Your task to perform on an android device: toggle pop-ups in chrome Image 0: 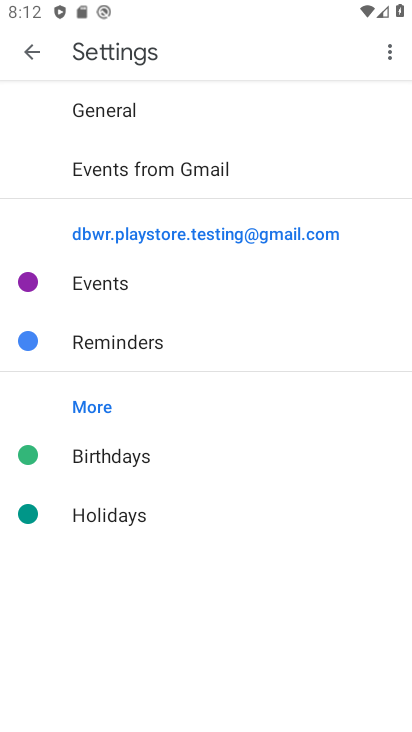
Step 0: press home button
Your task to perform on an android device: toggle pop-ups in chrome Image 1: 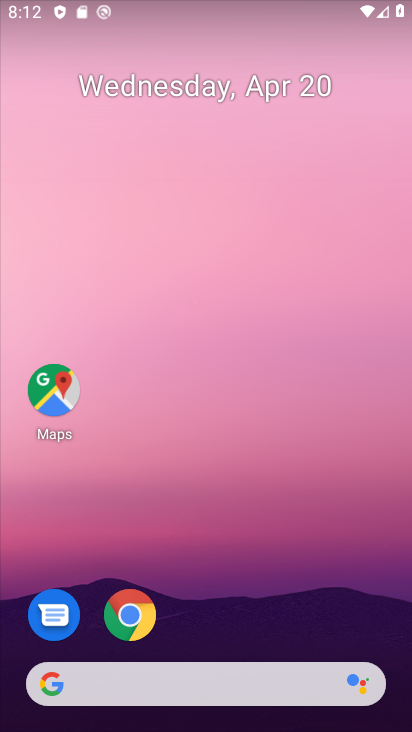
Step 1: click (121, 609)
Your task to perform on an android device: toggle pop-ups in chrome Image 2: 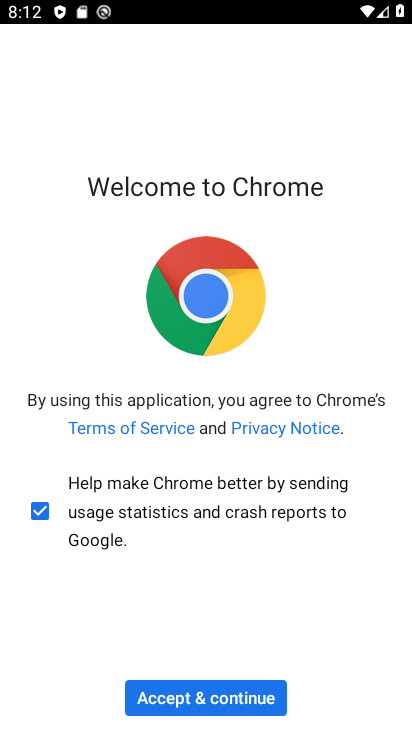
Step 2: click (166, 706)
Your task to perform on an android device: toggle pop-ups in chrome Image 3: 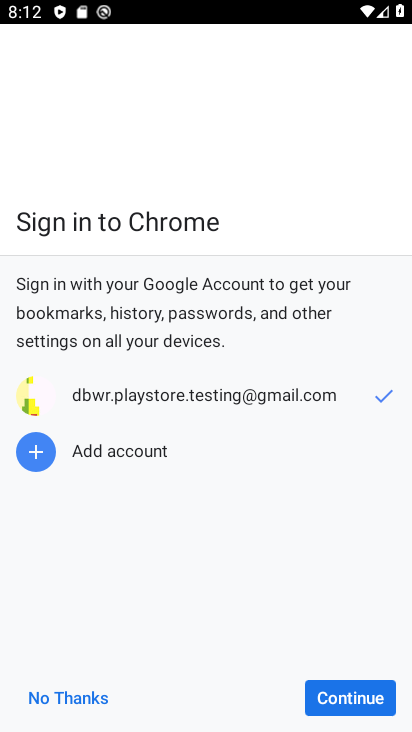
Step 3: click (62, 700)
Your task to perform on an android device: toggle pop-ups in chrome Image 4: 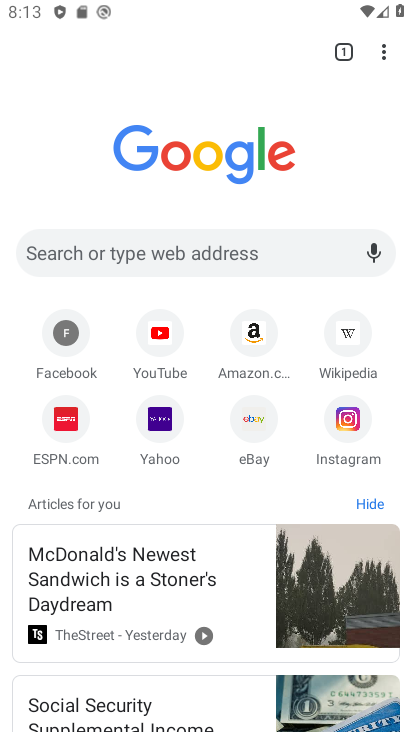
Step 4: click (388, 51)
Your task to perform on an android device: toggle pop-ups in chrome Image 5: 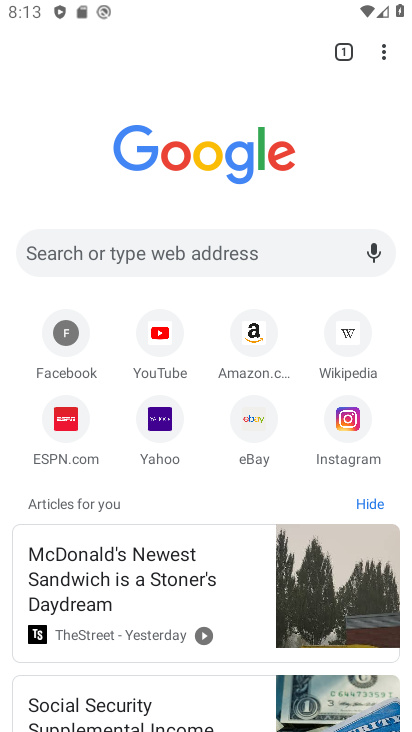
Step 5: click (387, 52)
Your task to perform on an android device: toggle pop-ups in chrome Image 6: 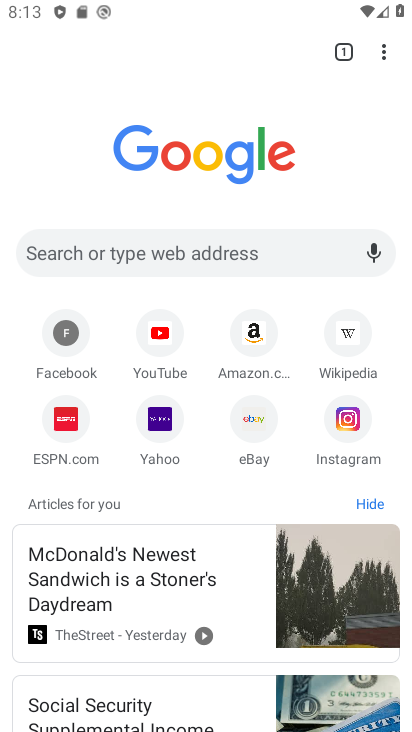
Step 6: click (387, 51)
Your task to perform on an android device: toggle pop-ups in chrome Image 7: 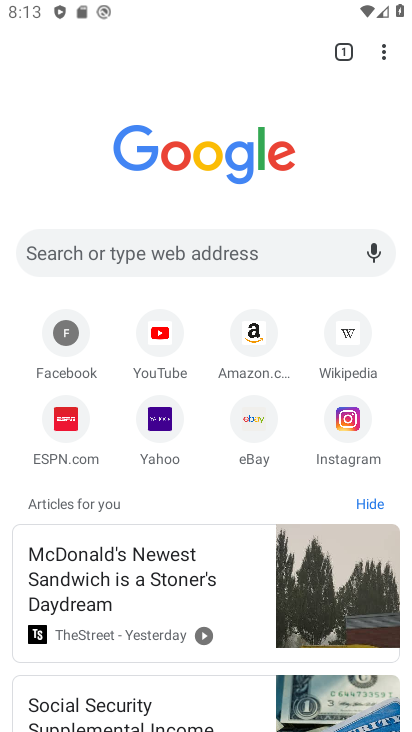
Step 7: click (383, 53)
Your task to perform on an android device: toggle pop-ups in chrome Image 8: 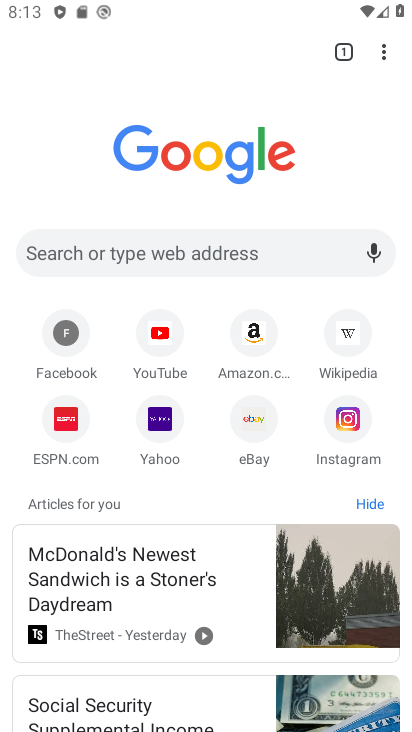
Step 8: click (382, 53)
Your task to perform on an android device: toggle pop-ups in chrome Image 9: 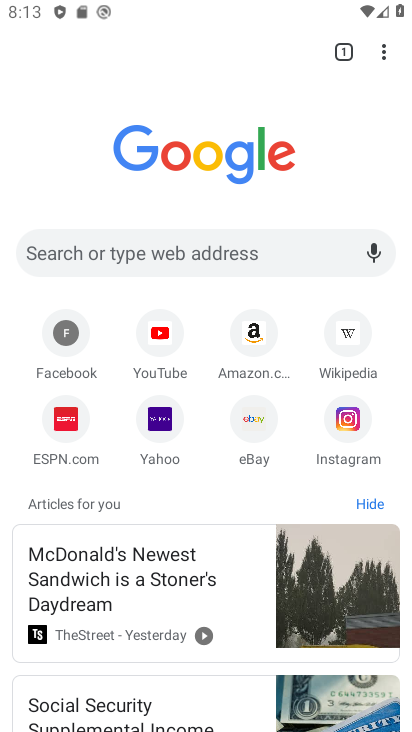
Step 9: click (382, 53)
Your task to perform on an android device: toggle pop-ups in chrome Image 10: 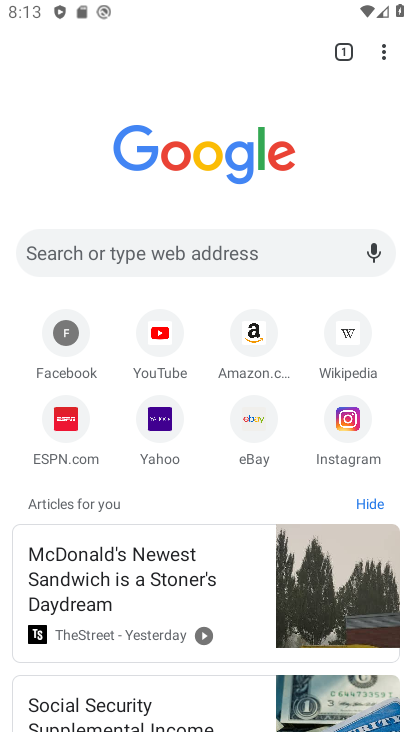
Step 10: click (382, 53)
Your task to perform on an android device: toggle pop-ups in chrome Image 11: 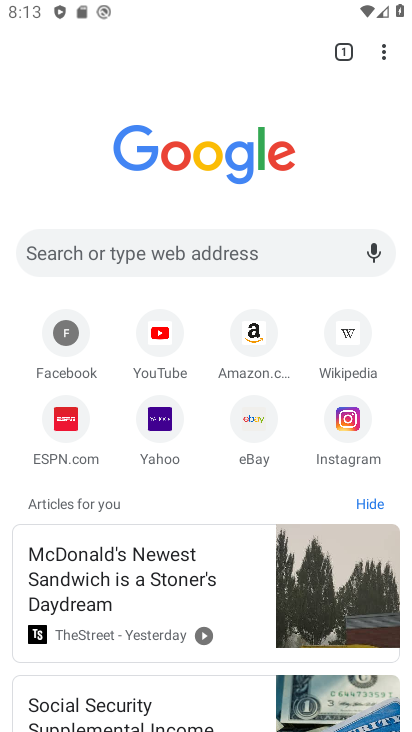
Step 11: click (382, 53)
Your task to perform on an android device: toggle pop-ups in chrome Image 12: 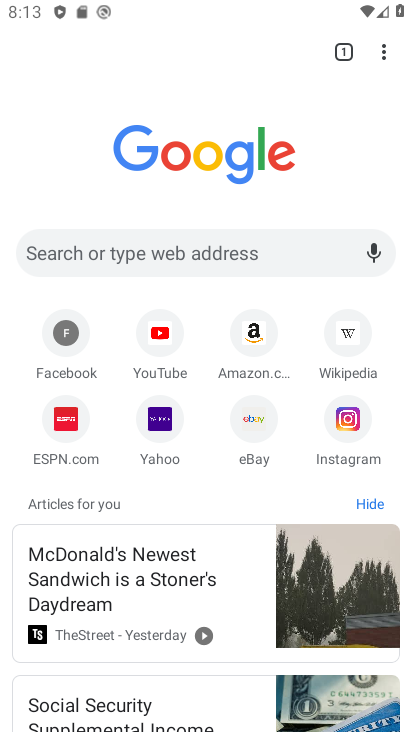
Step 12: click (382, 53)
Your task to perform on an android device: toggle pop-ups in chrome Image 13: 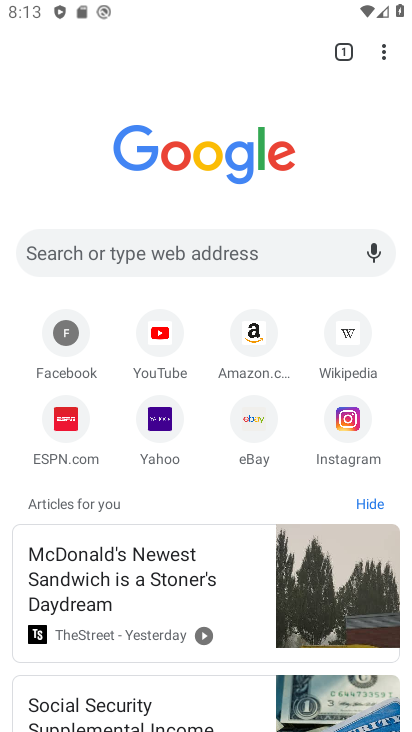
Step 13: click (382, 52)
Your task to perform on an android device: toggle pop-ups in chrome Image 14: 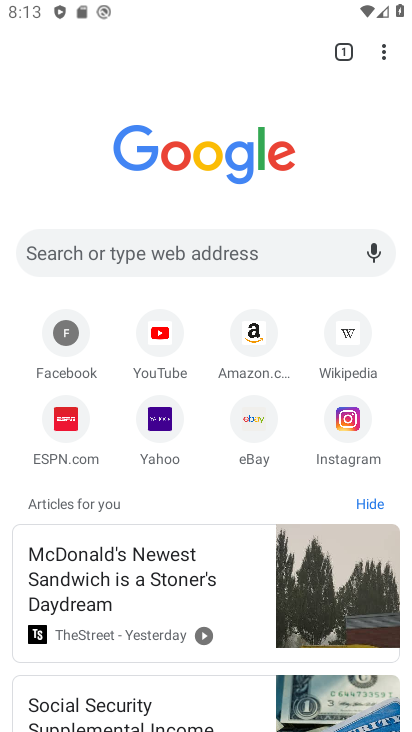
Step 14: click (382, 52)
Your task to perform on an android device: toggle pop-ups in chrome Image 15: 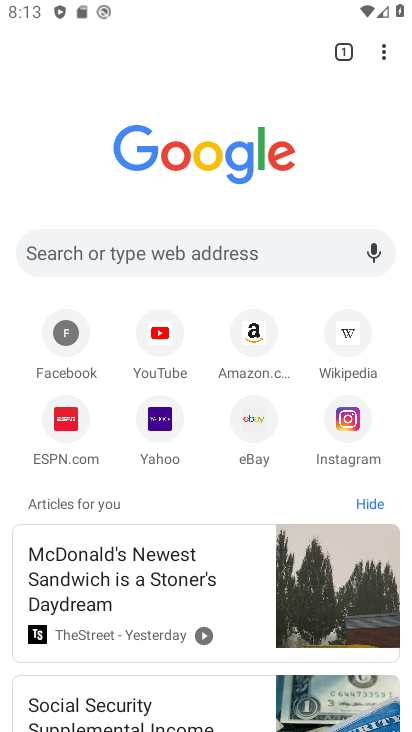
Step 15: click (382, 52)
Your task to perform on an android device: toggle pop-ups in chrome Image 16: 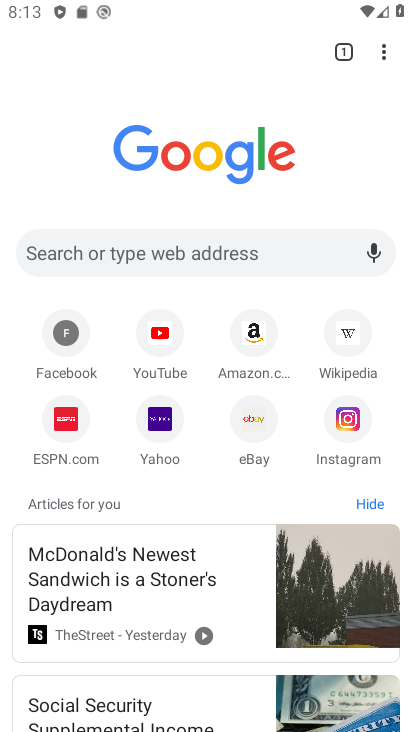
Step 16: click (382, 52)
Your task to perform on an android device: toggle pop-ups in chrome Image 17: 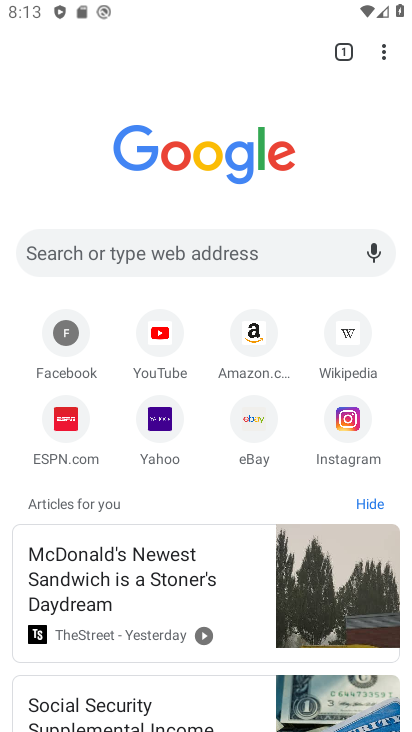
Step 17: click (384, 48)
Your task to perform on an android device: toggle pop-ups in chrome Image 18: 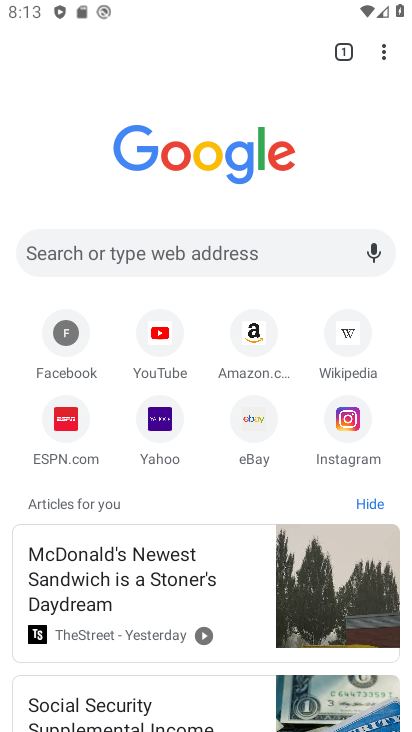
Step 18: click (385, 52)
Your task to perform on an android device: toggle pop-ups in chrome Image 19: 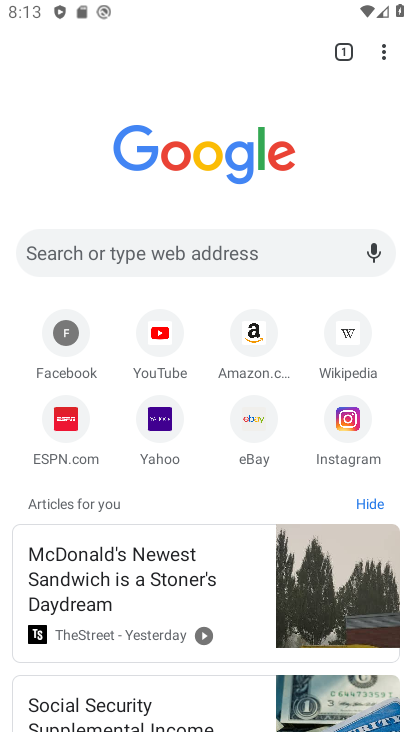
Step 19: click (381, 51)
Your task to perform on an android device: toggle pop-ups in chrome Image 20: 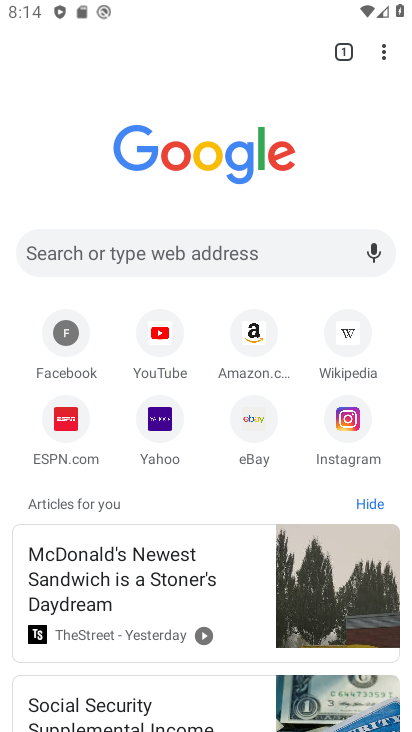
Step 20: click (393, 50)
Your task to perform on an android device: toggle pop-ups in chrome Image 21: 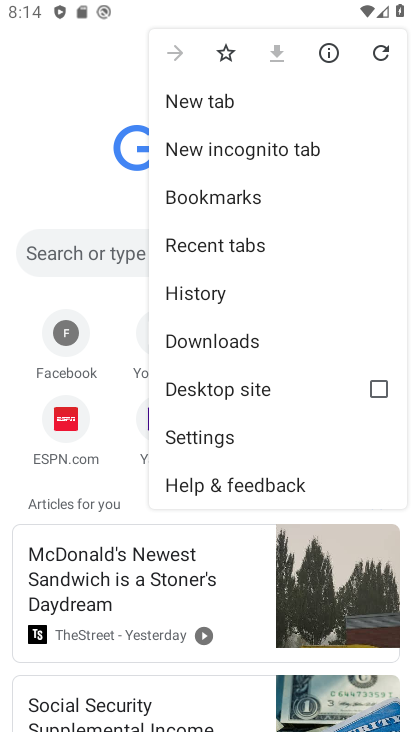
Step 21: click (226, 437)
Your task to perform on an android device: toggle pop-ups in chrome Image 22: 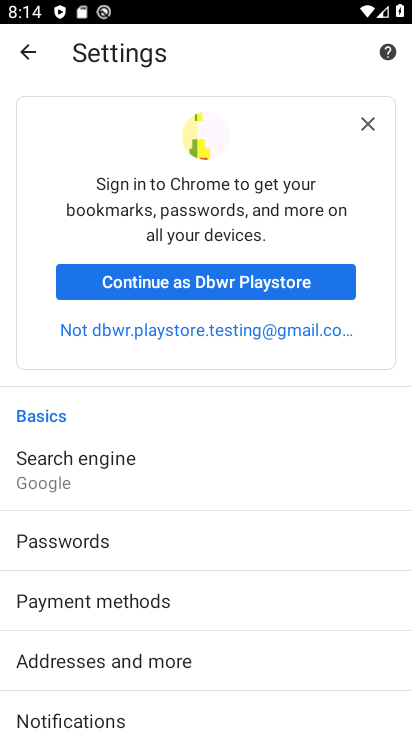
Step 22: drag from (153, 675) to (243, 353)
Your task to perform on an android device: toggle pop-ups in chrome Image 23: 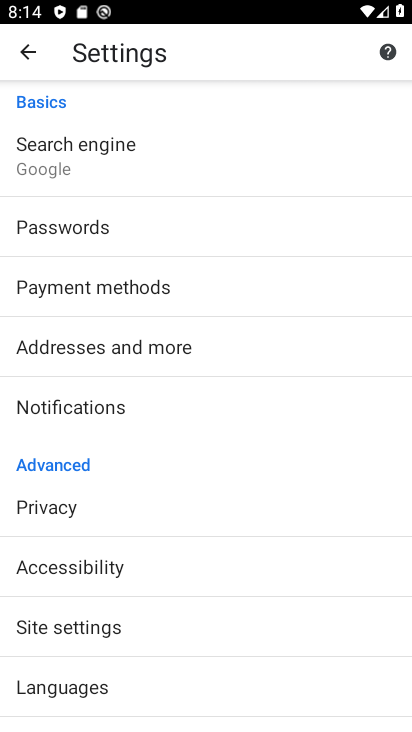
Step 23: click (87, 620)
Your task to perform on an android device: toggle pop-ups in chrome Image 24: 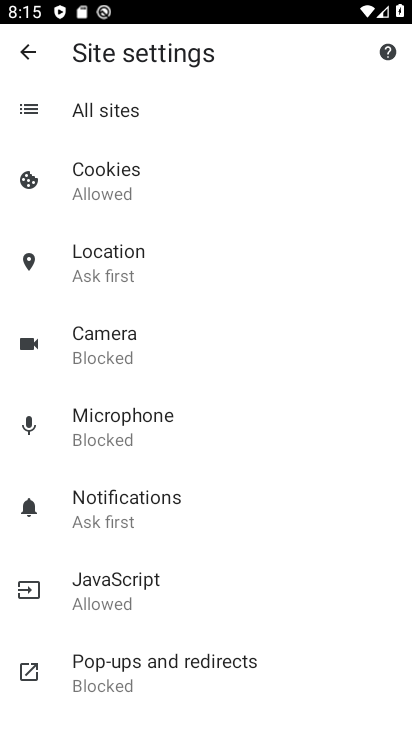
Step 24: click (111, 680)
Your task to perform on an android device: toggle pop-ups in chrome Image 25: 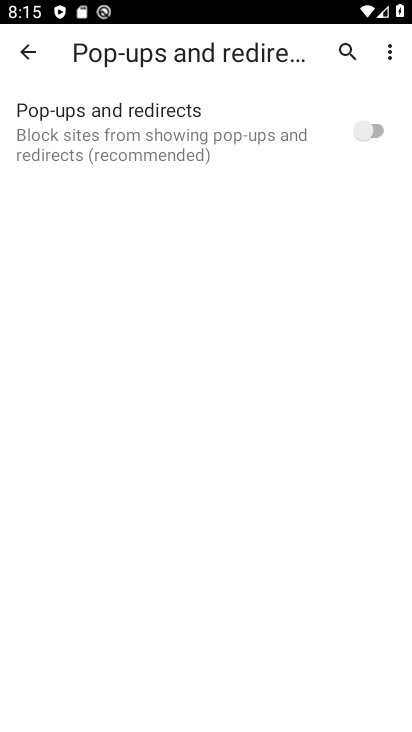
Step 25: click (365, 129)
Your task to perform on an android device: toggle pop-ups in chrome Image 26: 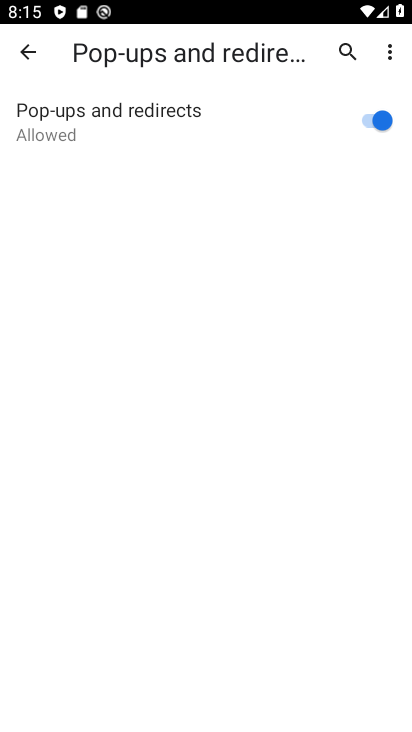
Step 26: task complete